Your task to perform on an android device: Search for vegetarian restaurants on Maps Image 0: 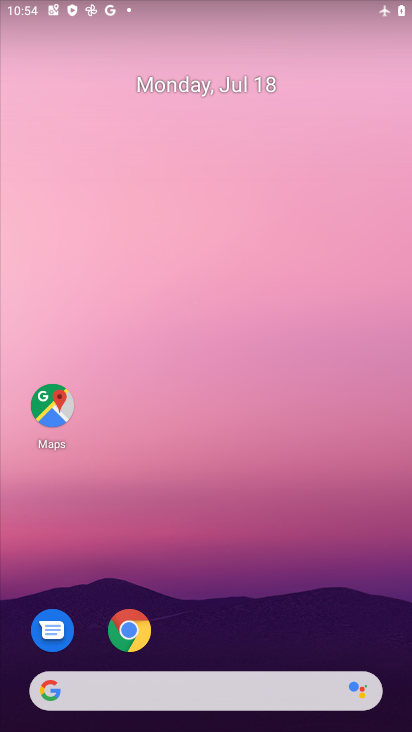
Step 0: drag from (337, 619) to (253, 84)
Your task to perform on an android device: Search for vegetarian restaurants on Maps Image 1: 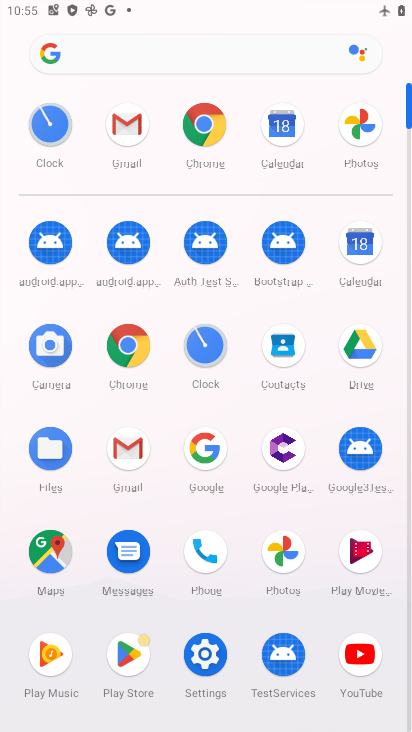
Step 1: click (54, 542)
Your task to perform on an android device: Search for vegetarian restaurants on Maps Image 2: 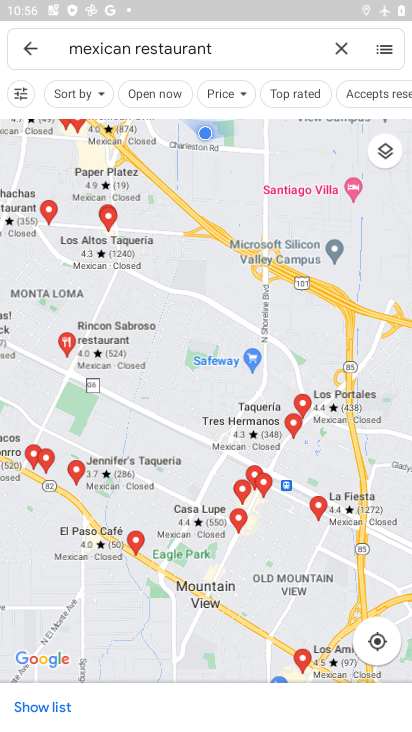
Step 2: click (340, 44)
Your task to perform on an android device: Search for vegetarian restaurants on Maps Image 3: 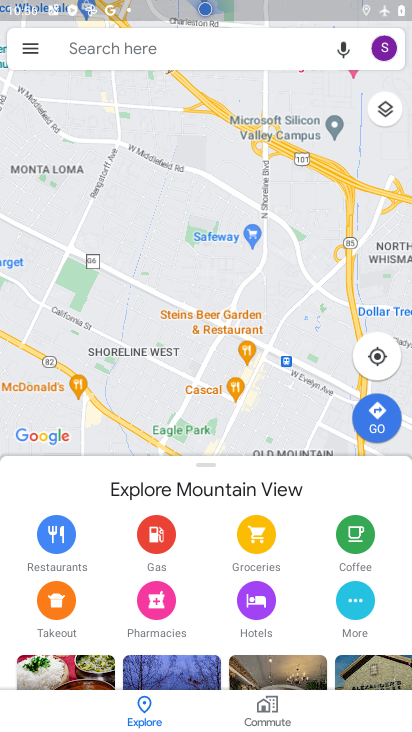
Step 3: click (181, 44)
Your task to perform on an android device: Search for vegetarian restaurants on Maps Image 4: 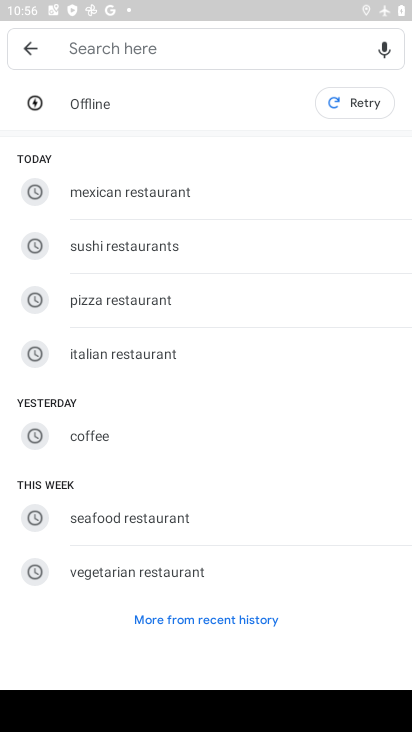
Step 4: click (129, 568)
Your task to perform on an android device: Search for vegetarian restaurants on Maps Image 5: 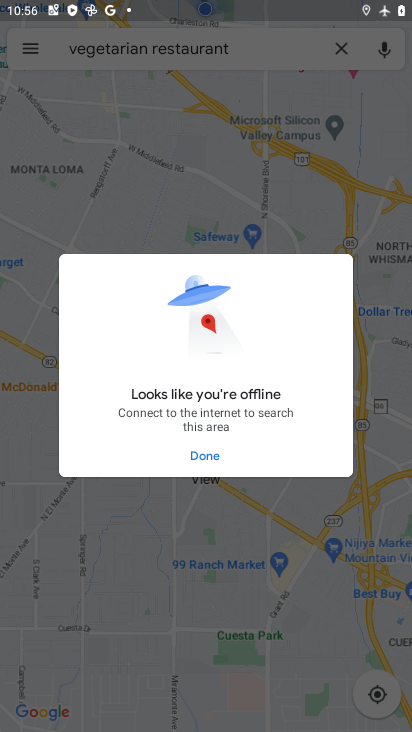
Step 5: task complete